Your task to perform on an android device: visit the assistant section in the google photos Image 0: 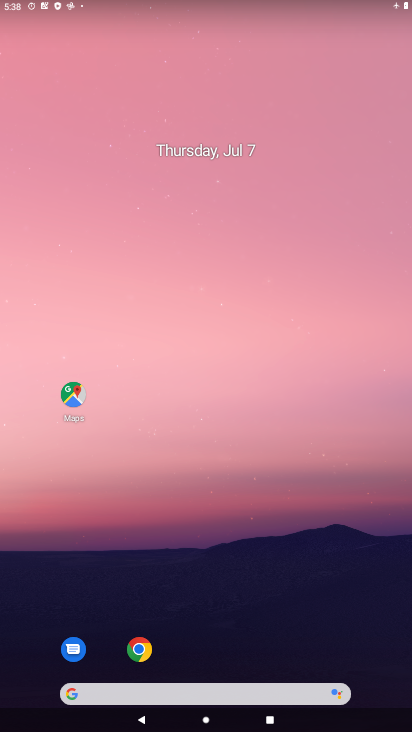
Step 0: drag from (371, 664) to (196, 31)
Your task to perform on an android device: visit the assistant section in the google photos Image 1: 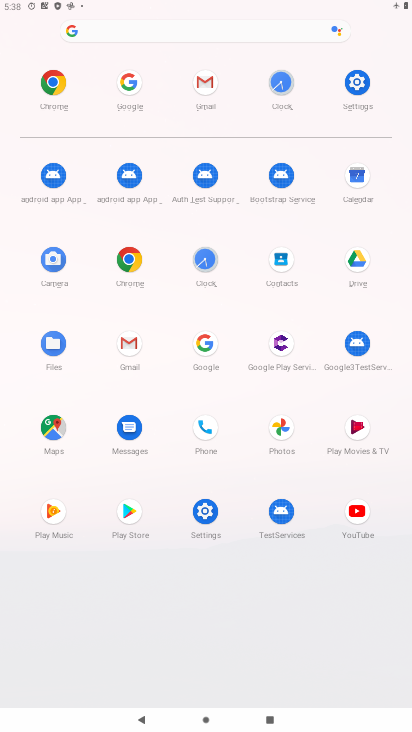
Step 1: click (274, 440)
Your task to perform on an android device: visit the assistant section in the google photos Image 2: 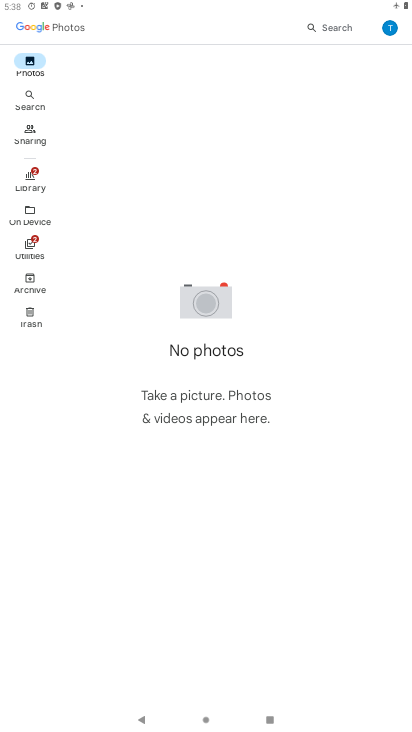
Step 2: task complete